Your task to perform on an android device: Open Reddit.com Image 0: 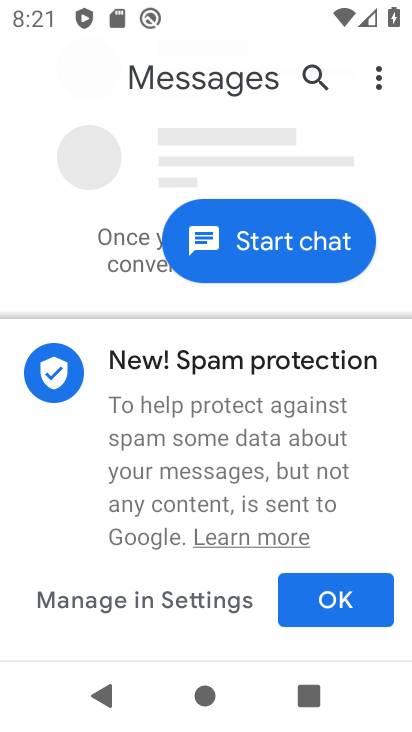
Step 0: press home button
Your task to perform on an android device: Open Reddit.com Image 1: 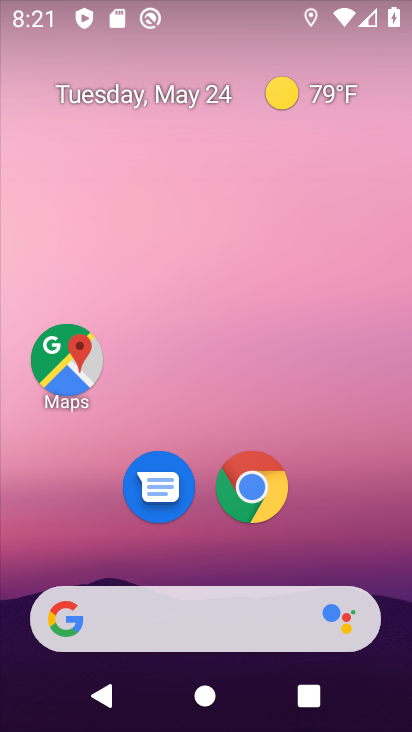
Step 1: click (238, 486)
Your task to perform on an android device: Open Reddit.com Image 2: 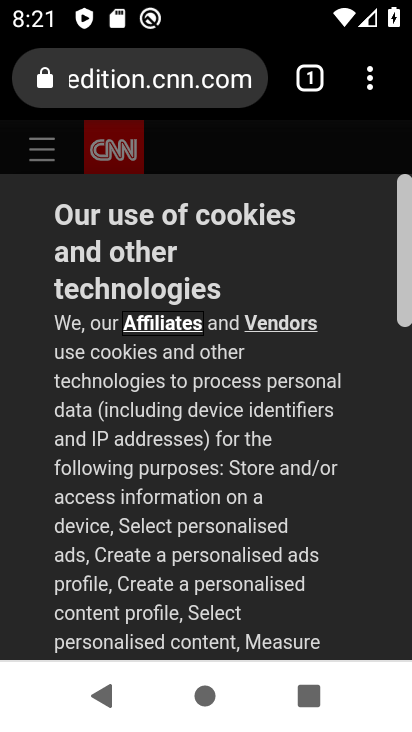
Step 2: click (146, 77)
Your task to perform on an android device: Open Reddit.com Image 3: 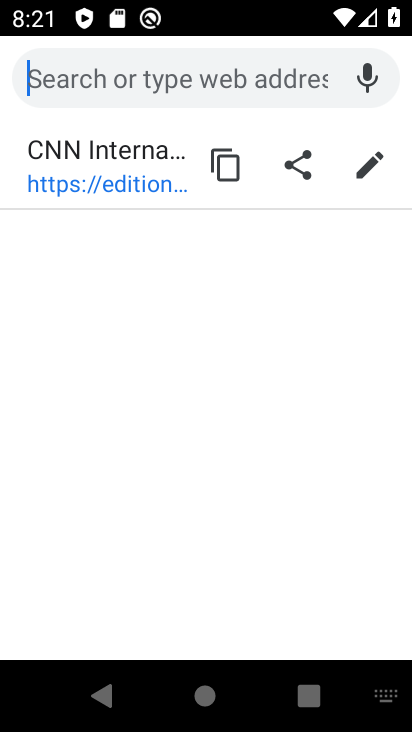
Step 3: type " Reddit.com"
Your task to perform on an android device: Open Reddit.com Image 4: 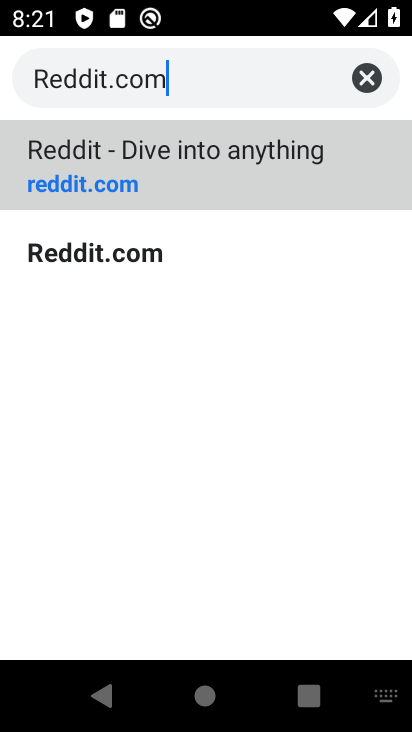
Step 4: click (77, 187)
Your task to perform on an android device: Open Reddit.com Image 5: 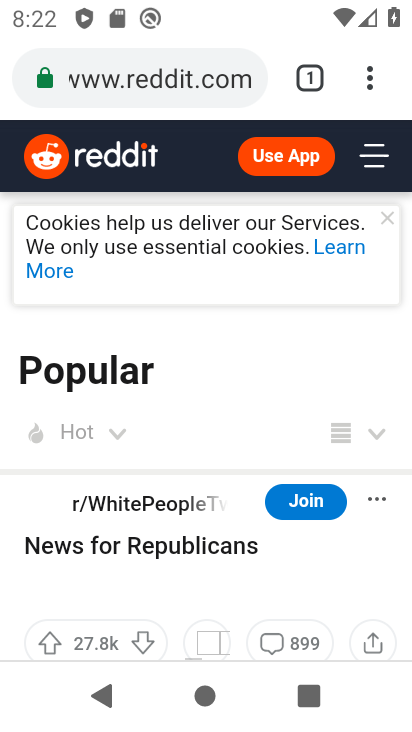
Step 5: task complete